Your task to perform on an android device: Go to internet settings Image 0: 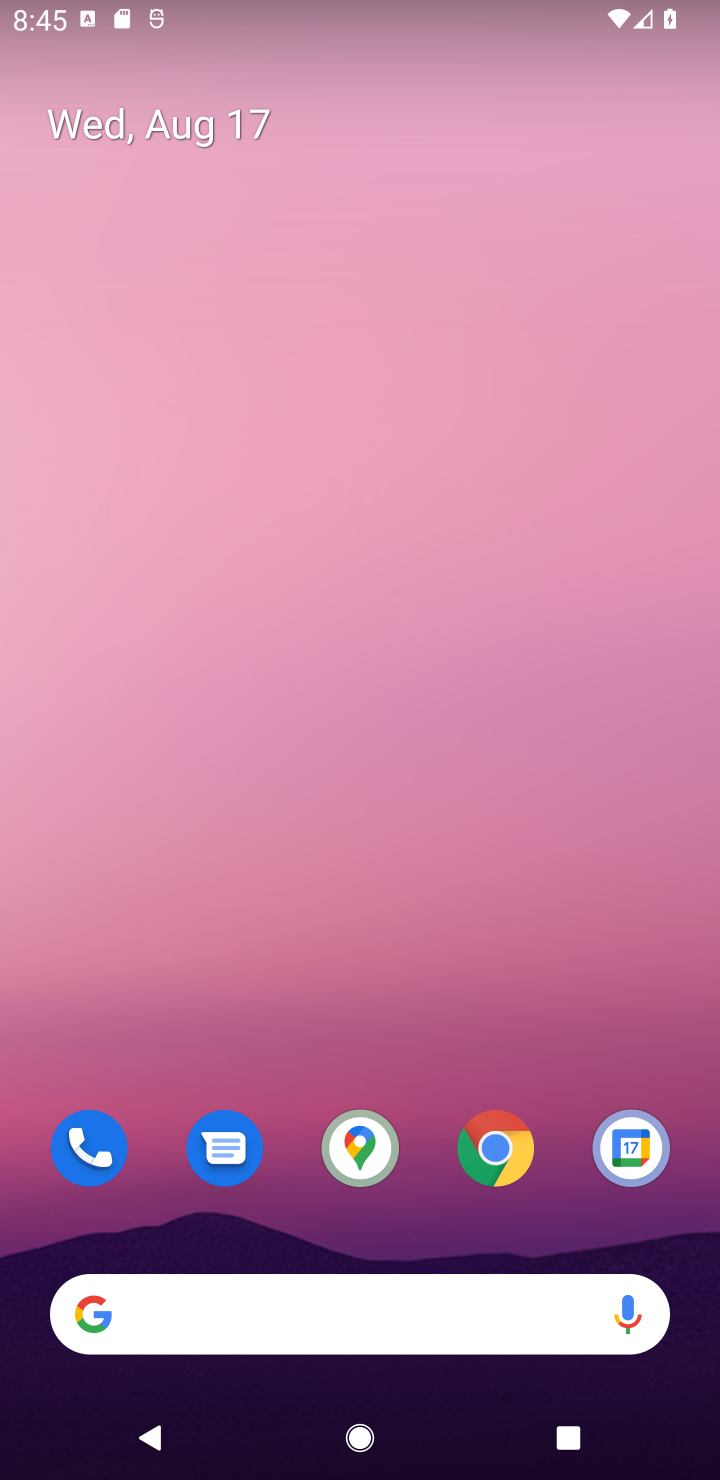
Step 0: drag from (563, 1225) to (485, 241)
Your task to perform on an android device: Go to internet settings Image 1: 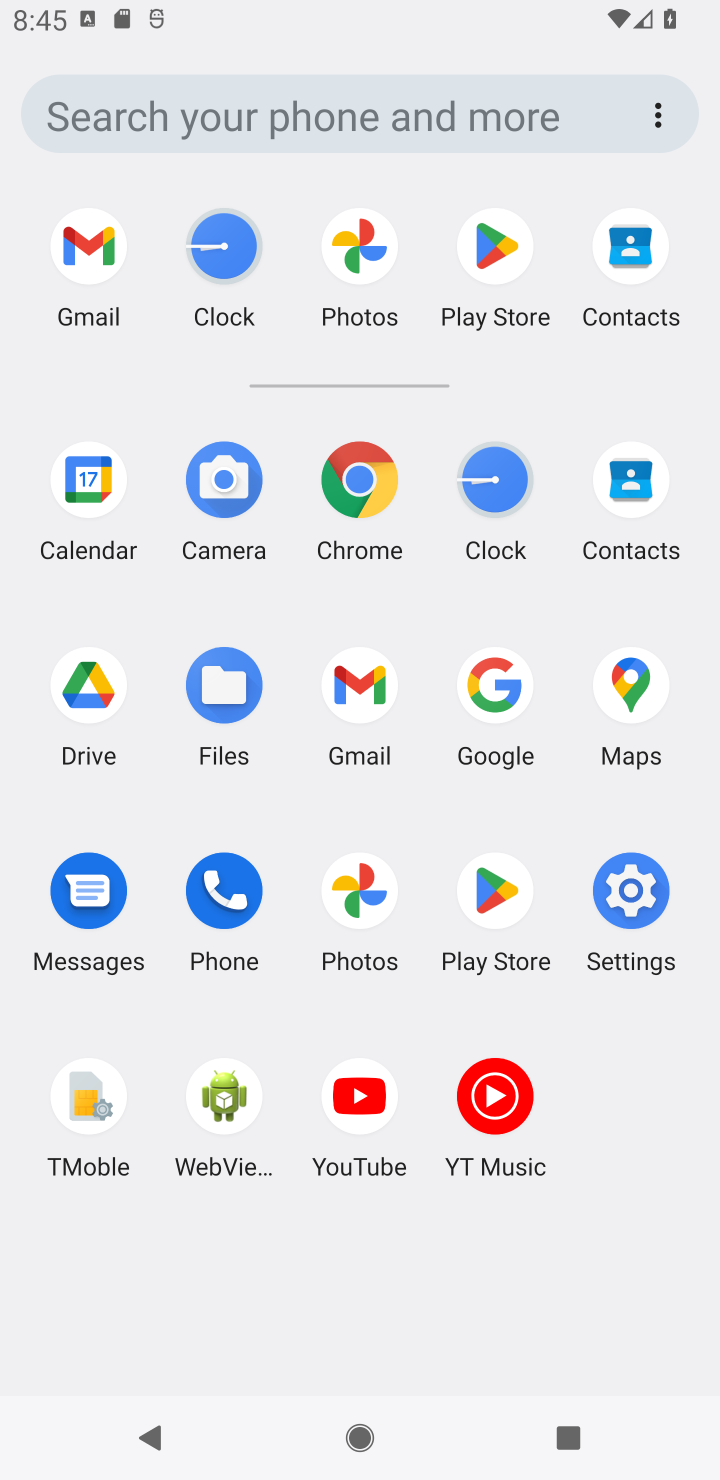
Step 1: click (638, 898)
Your task to perform on an android device: Go to internet settings Image 2: 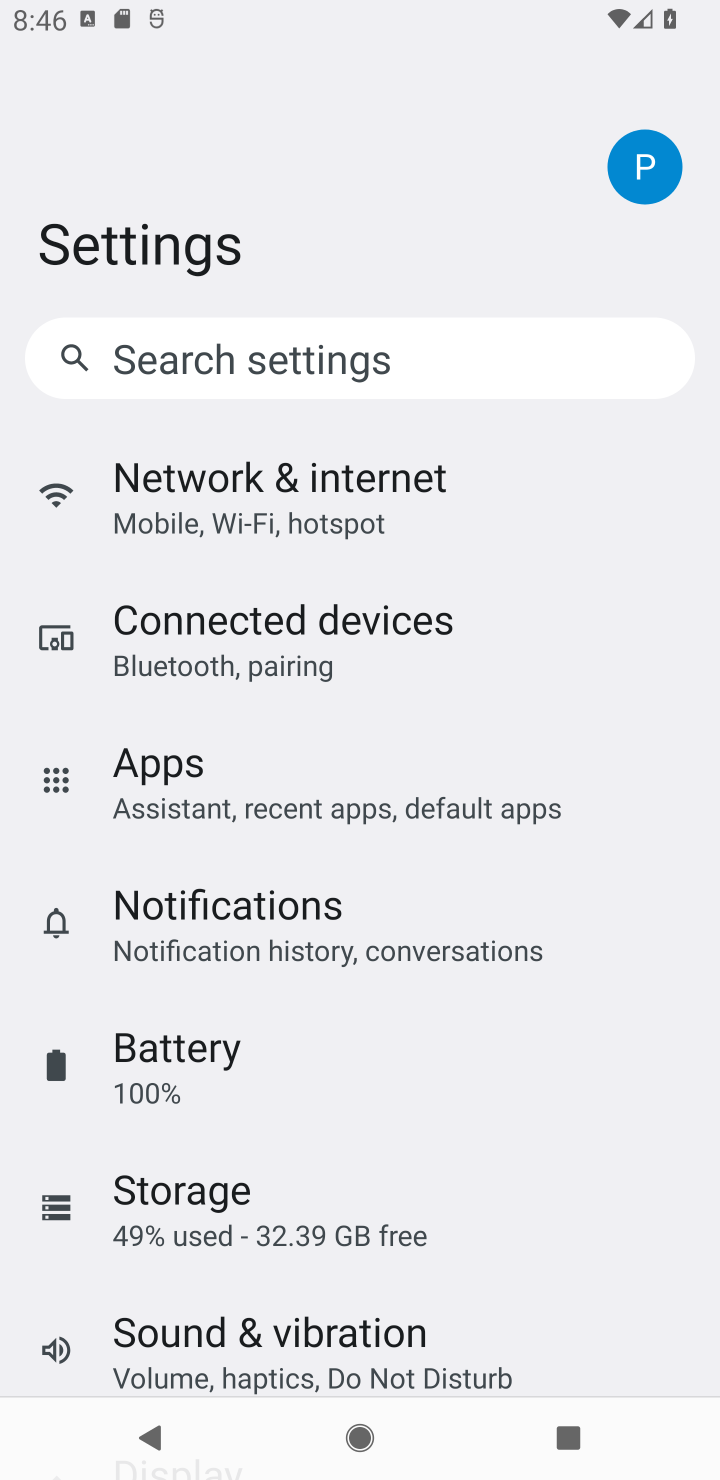
Step 2: click (214, 498)
Your task to perform on an android device: Go to internet settings Image 3: 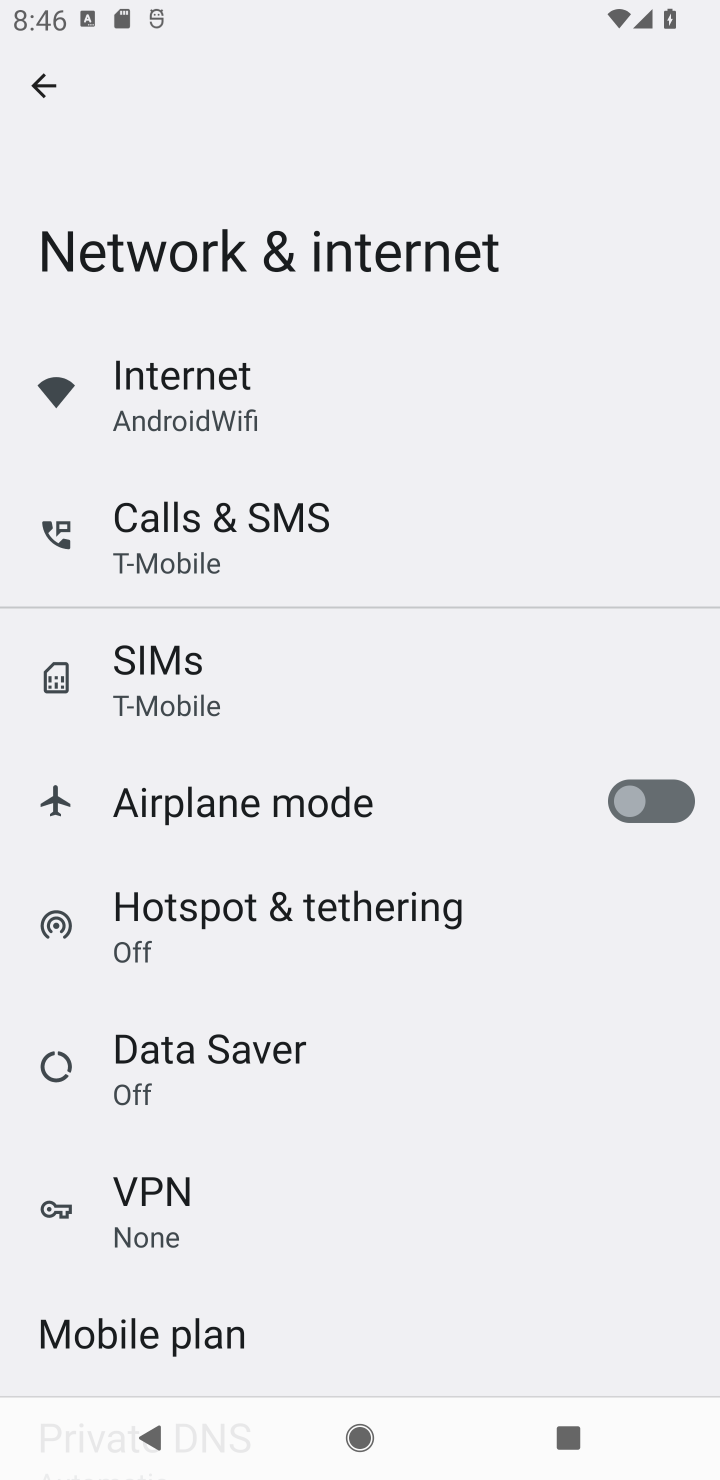
Step 3: click (162, 386)
Your task to perform on an android device: Go to internet settings Image 4: 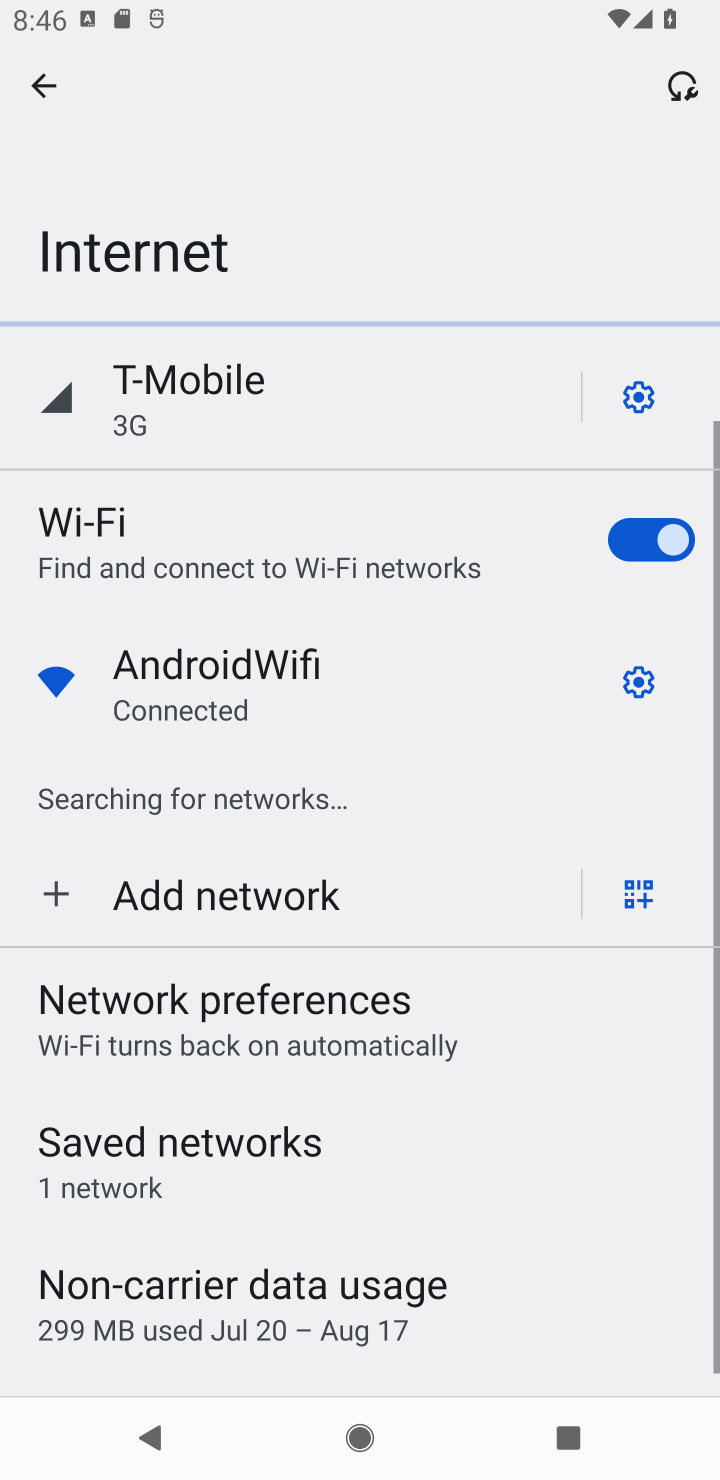
Step 4: click (635, 401)
Your task to perform on an android device: Go to internet settings Image 5: 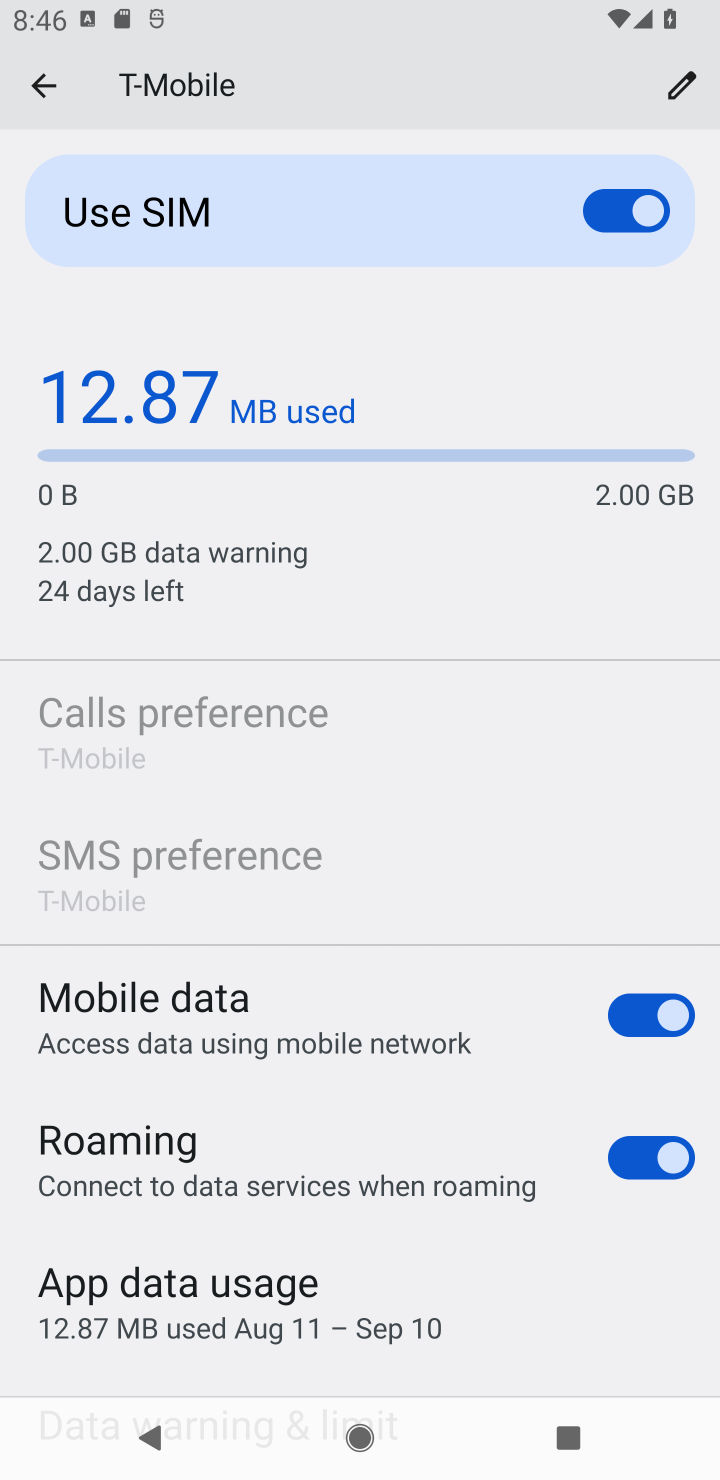
Step 5: task complete